Your task to perform on an android device: Empty the shopping cart on amazon. Add alienware area 51 to the cart on amazon Image 0: 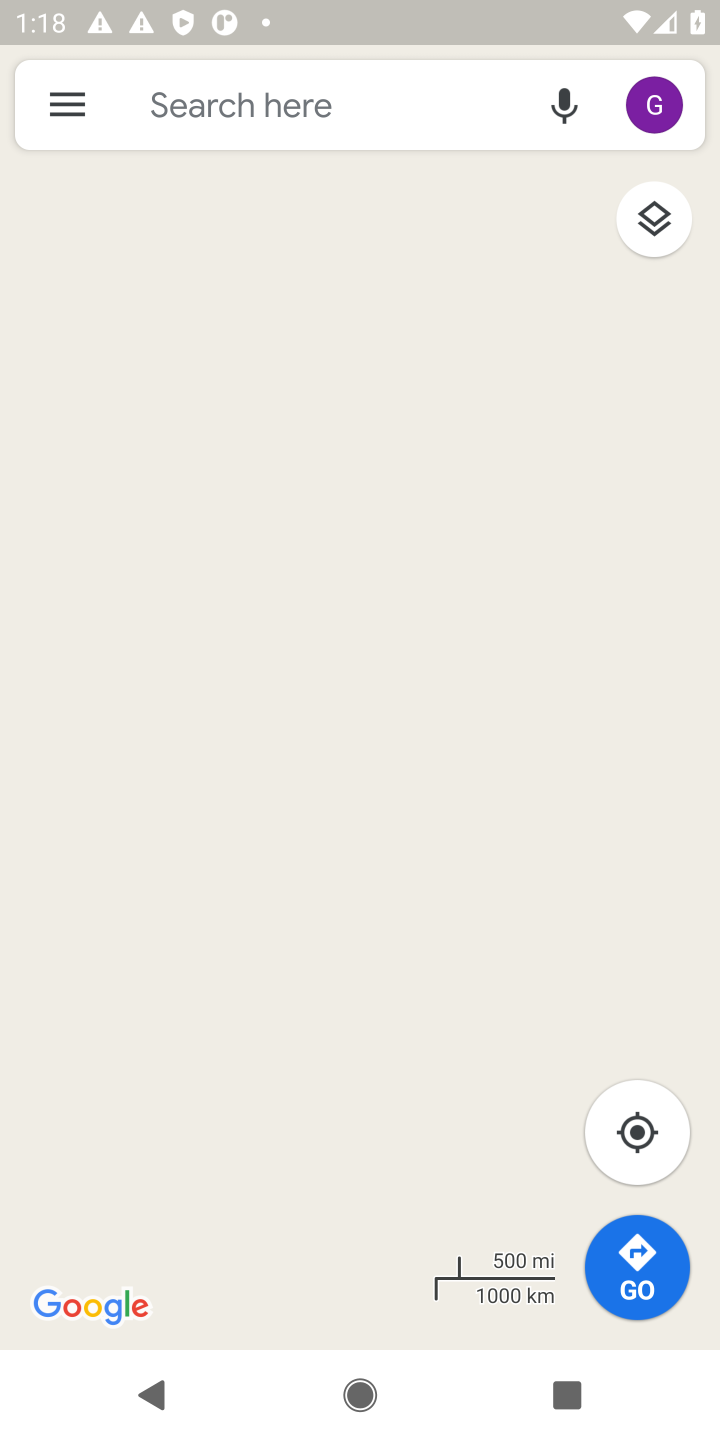
Step 0: press home button
Your task to perform on an android device: Empty the shopping cart on amazon. Add alienware area 51 to the cart on amazon Image 1: 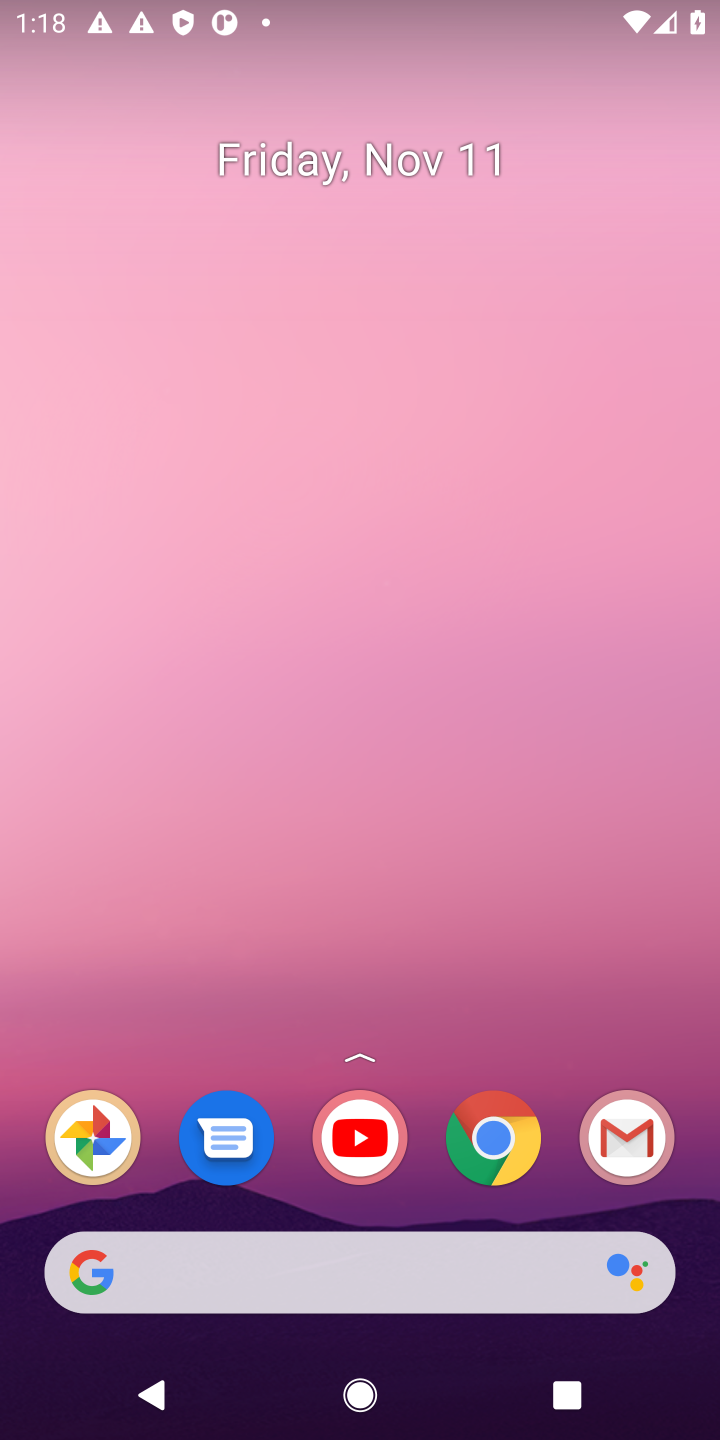
Step 1: click (479, 1130)
Your task to perform on an android device: Empty the shopping cart on amazon. Add alienware area 51 to the cart on amazon Image 2: 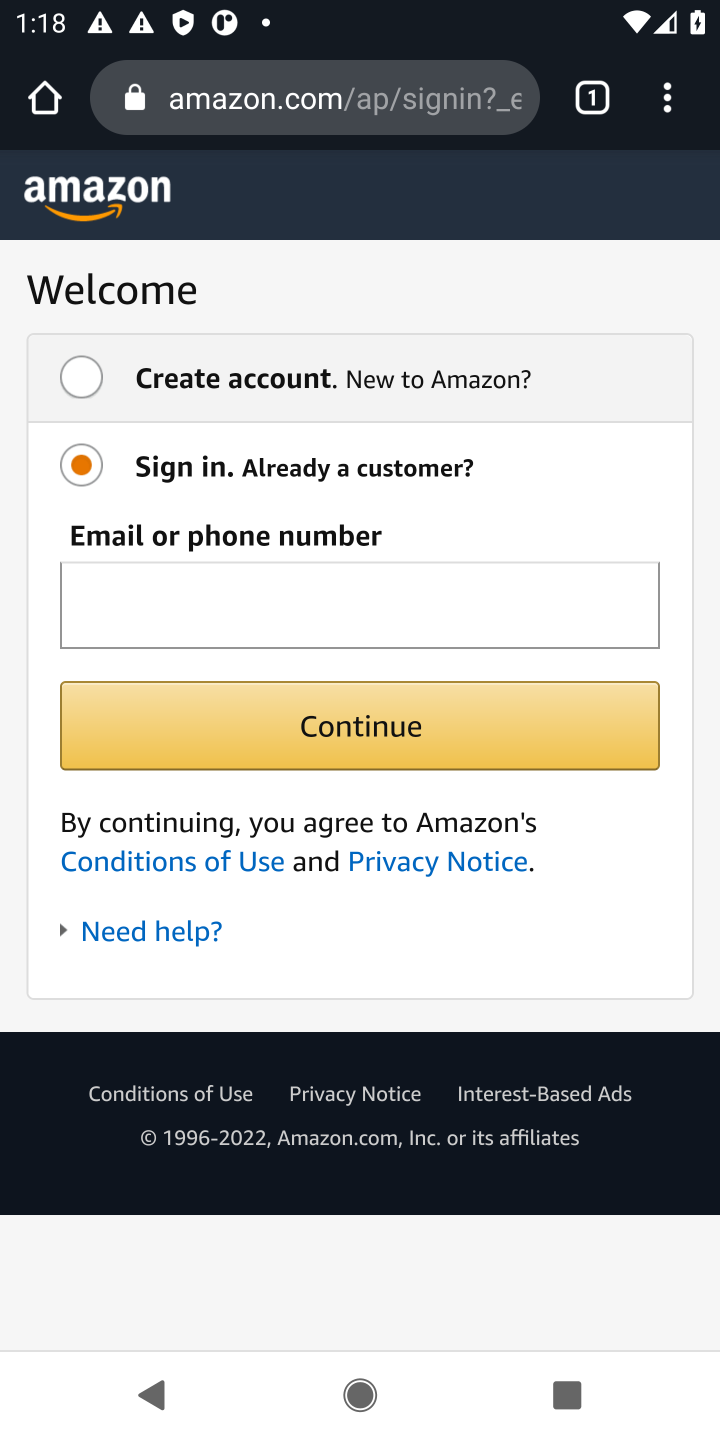
Step 2: press back button
Your task to perform on an android device: Empty the shopping cart on amazon. Add alienware area 51 to the cart on amazon Image 3: 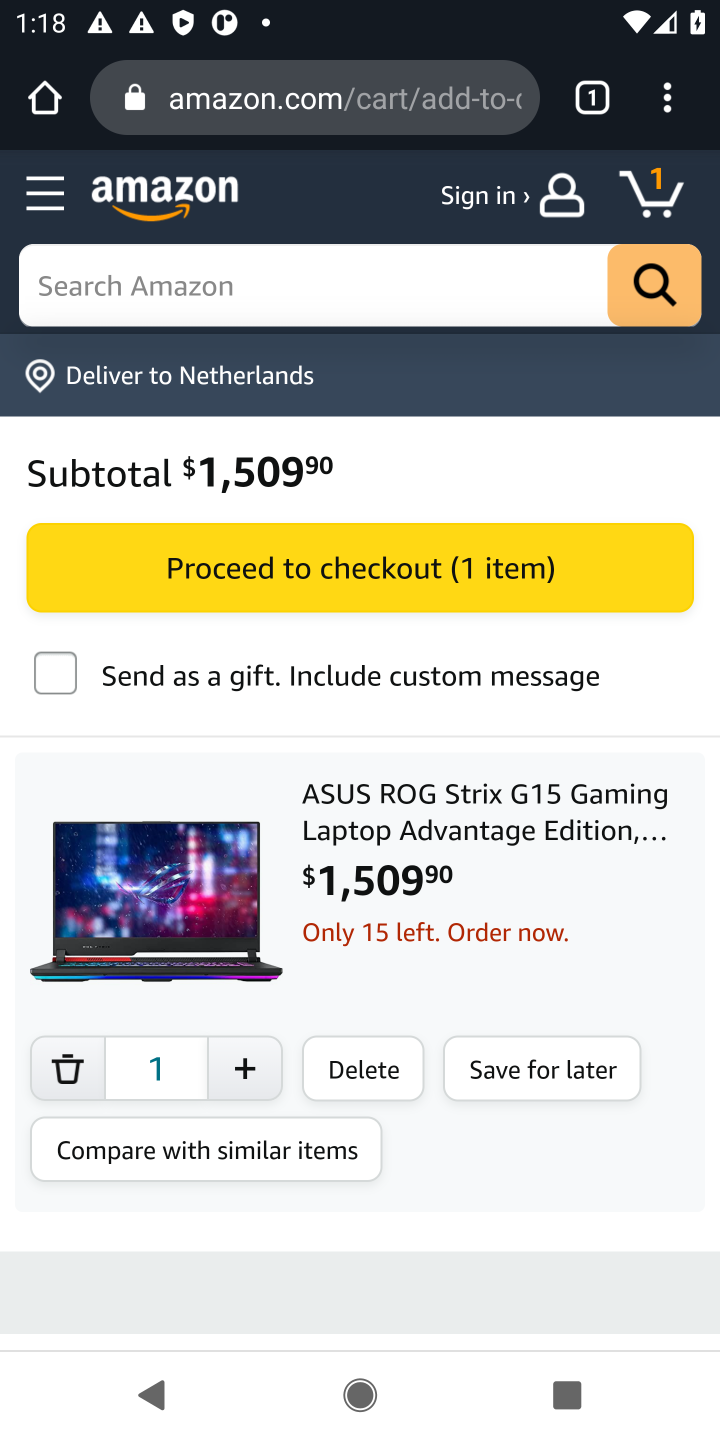
Step 3: click (164, 270)
Your task to perform on an android device: Empty the shopping cart on amazon. Add alienware area 51 to the cart on amazon Image 4: 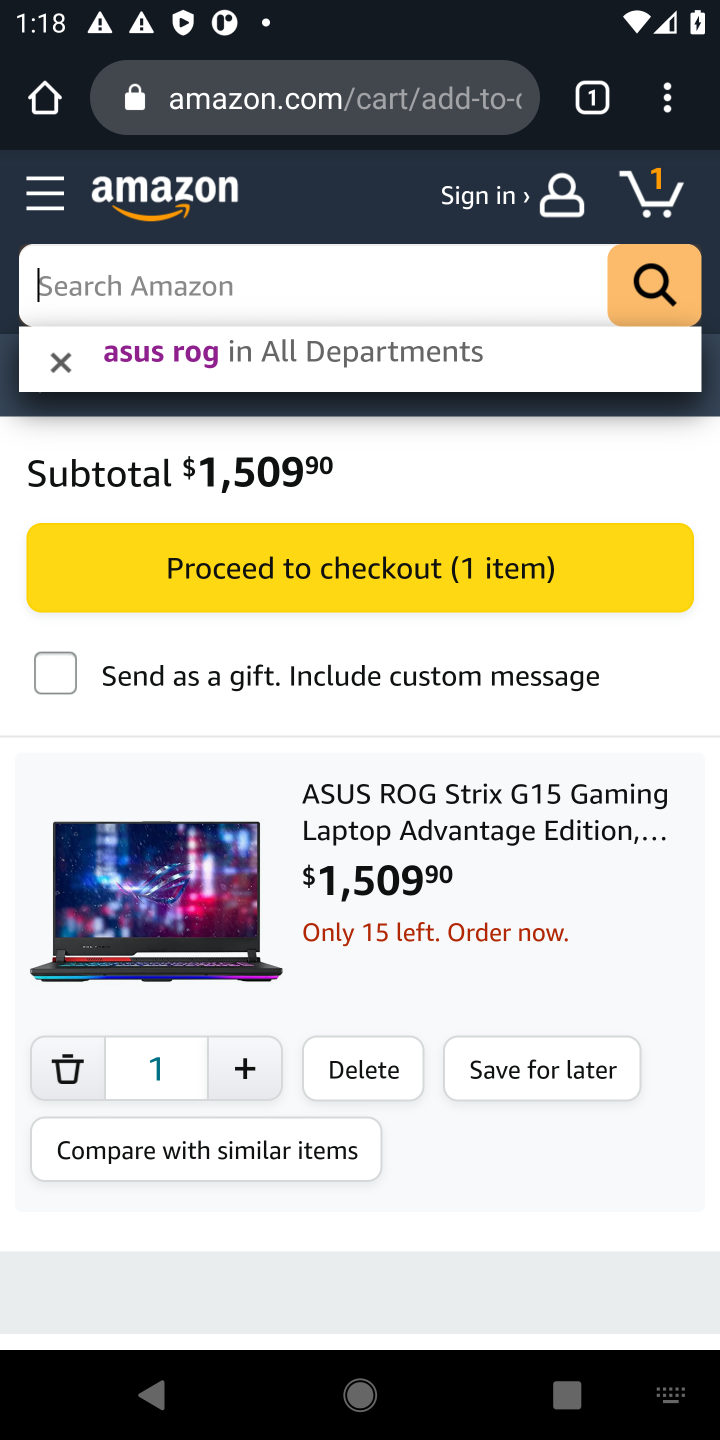
Step 4: type "alienware area 51"
Your task to perform on an android device: Empty the shopping cart on amazon. Add alienware area 51 to the cart on amazon Image 5: 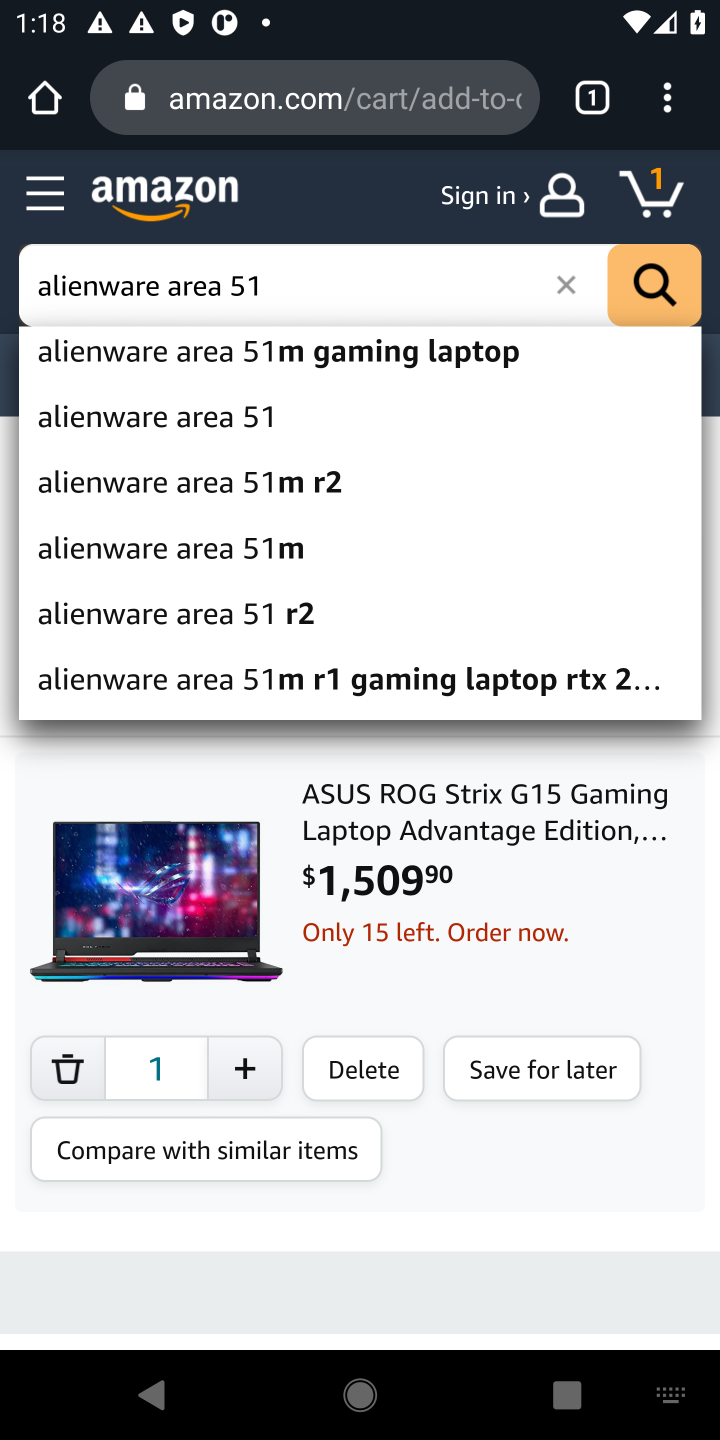
Step 5: click (235, 408)
Your task to perform on an android device: Empty the shopping cart on amazon. Add alienware area 51 to the cart on amazon Image 6: 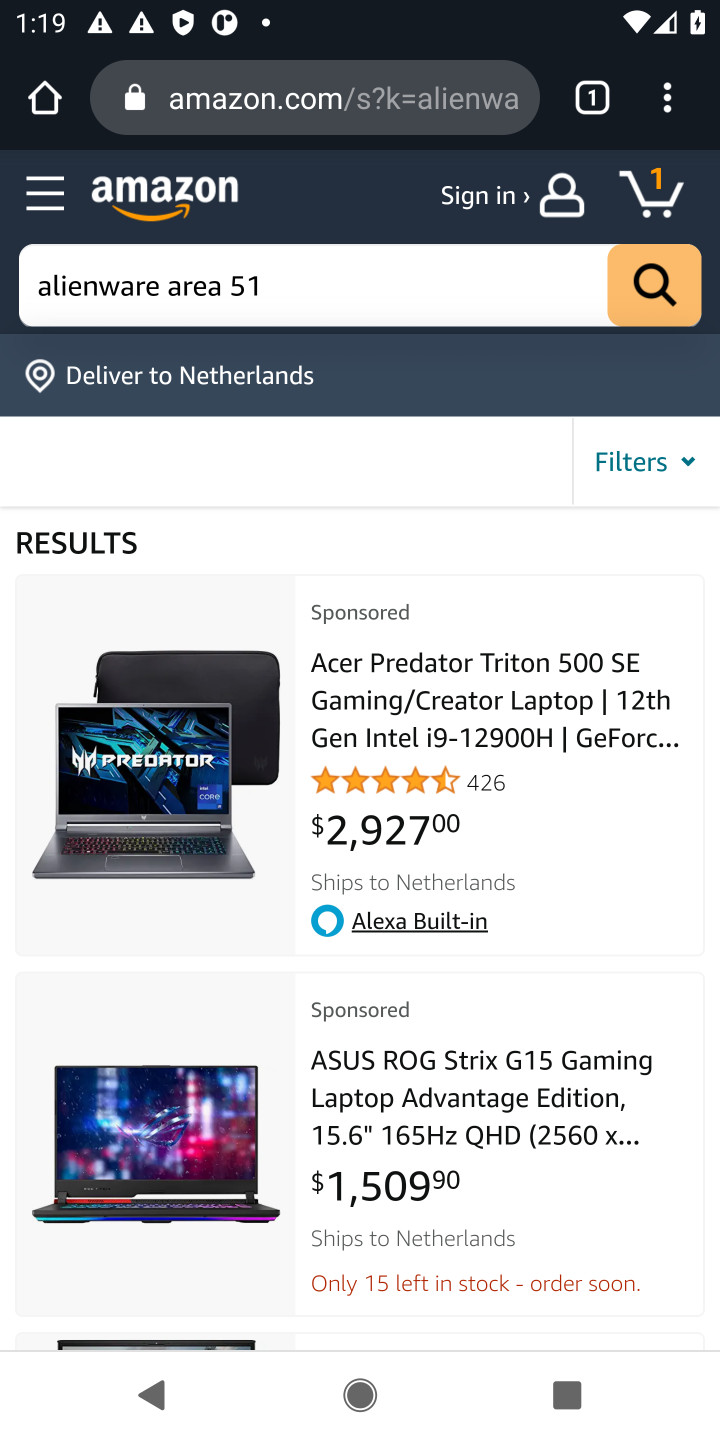
Step 6: drag from (554, 989) to (602, 622)
Your task to perform on an android device: Empty the shopping cart on amazon. Add alienware area 51 to the cart on amazon Image 7: 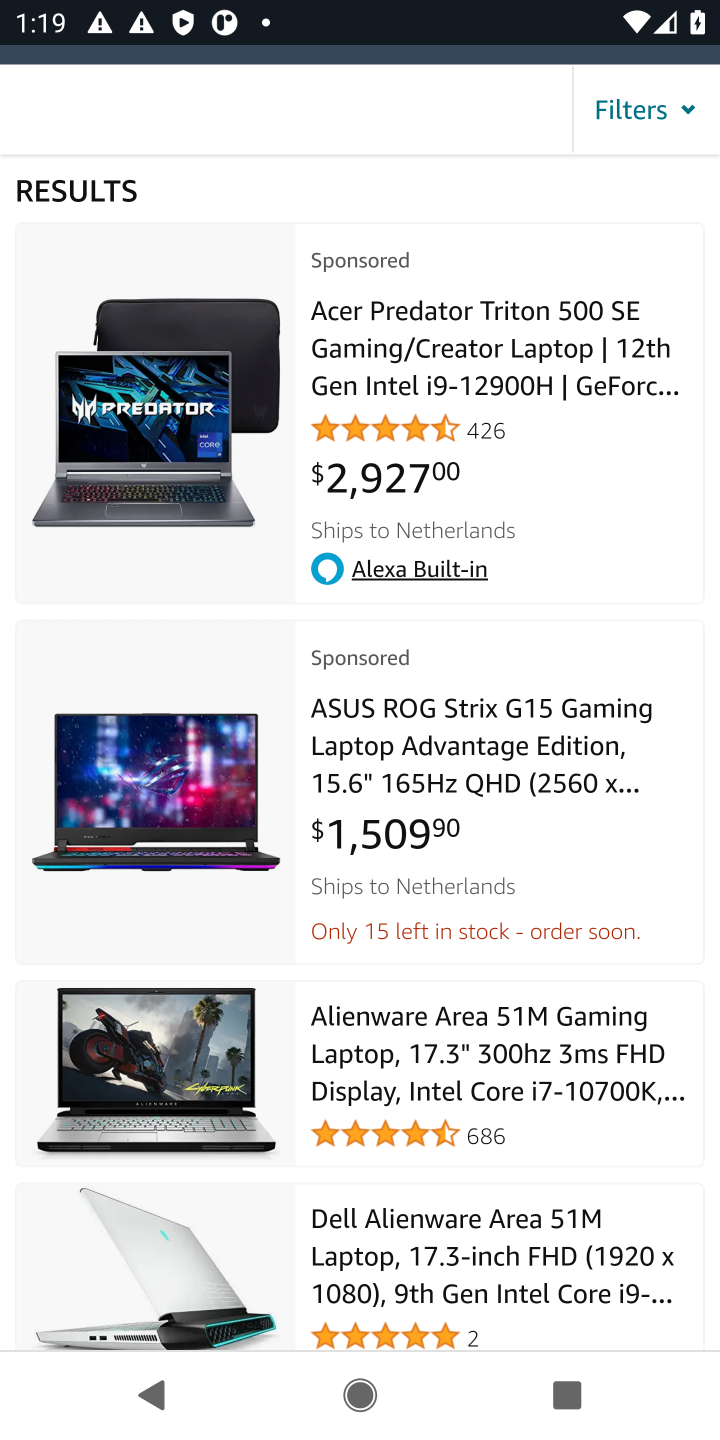
Step 7: click (458, 1039)
Your task to perform on an android device: Empty the shopping cart on amazon. Add alienware area 51 to the cart on amazon Image 8: 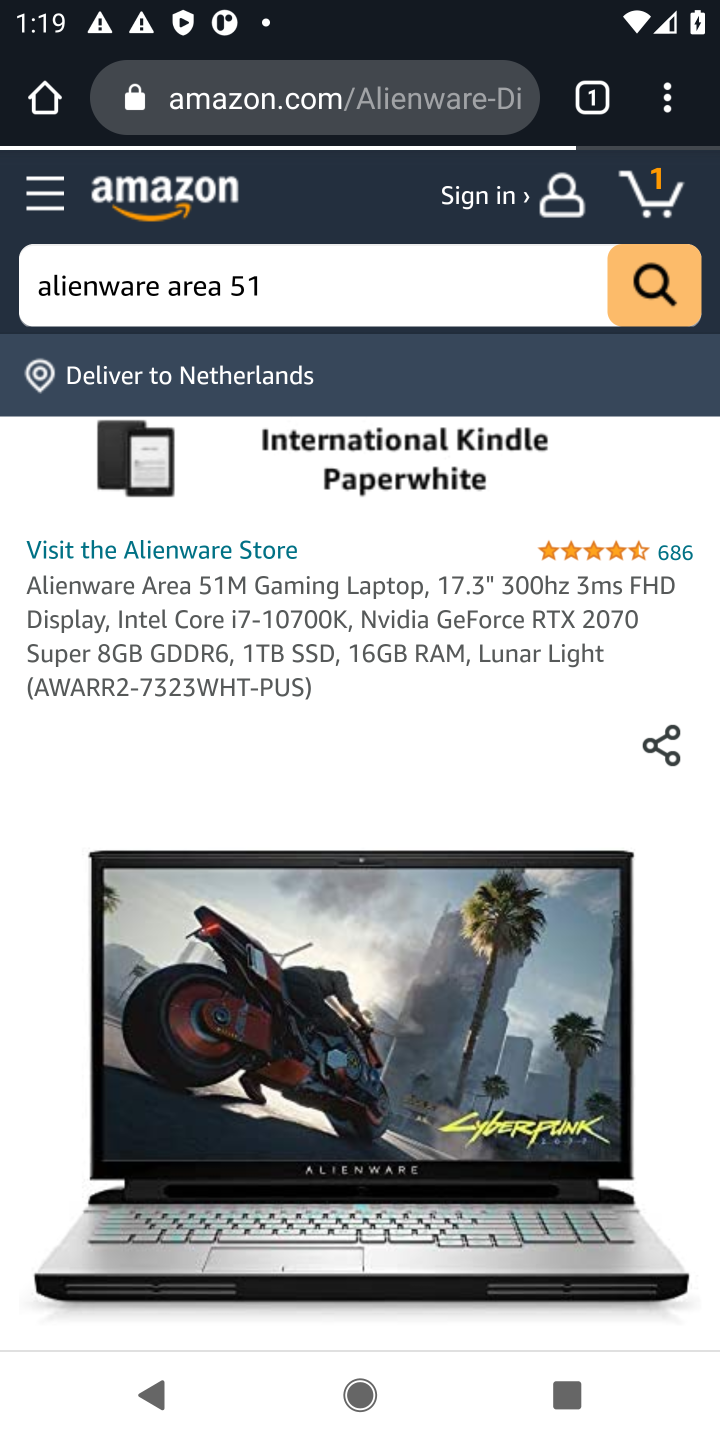
Step 8: drag from (204, 869) to (259, 571)
Your task to perform on an android device: Empty the shopping cart on amazon. Add alienware area 51 to the cart on amazon Image 9: 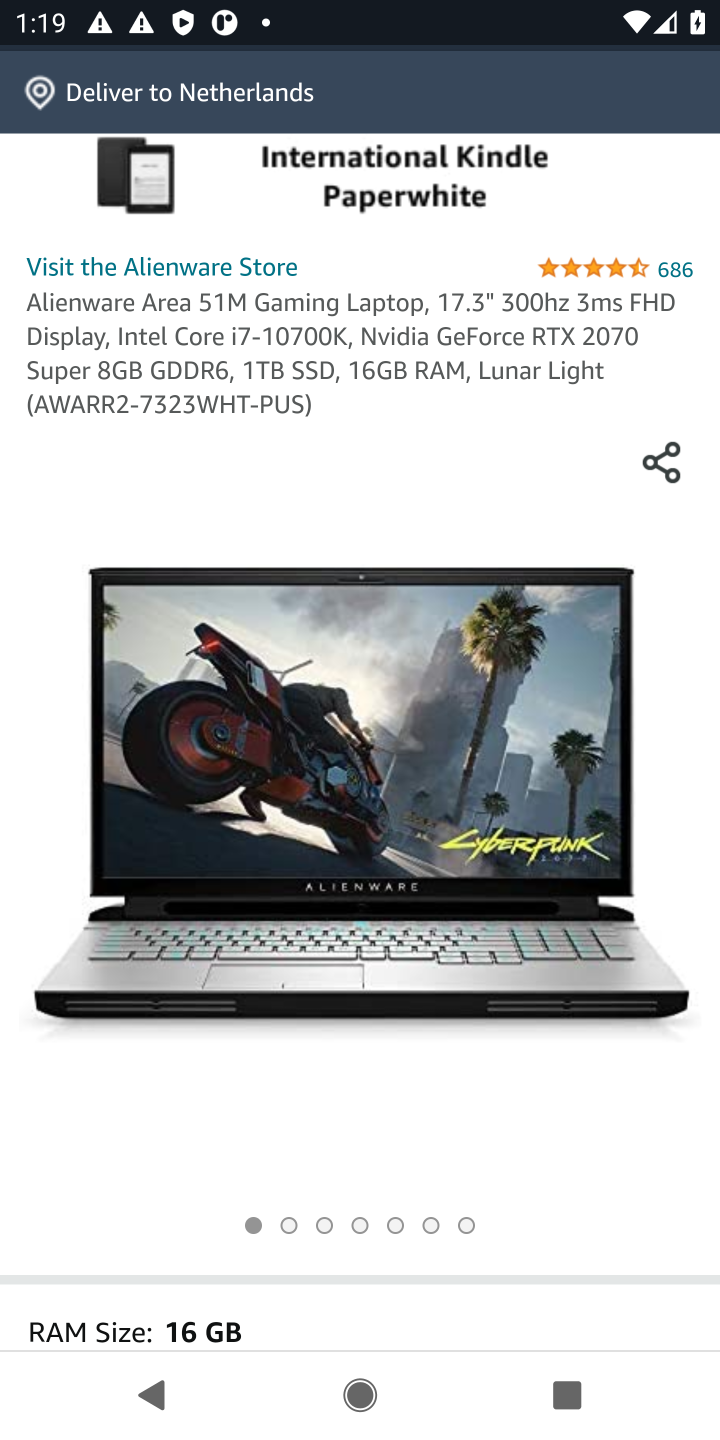
Step 9: drag from (346, 1120) to (655, 40)
Your task to perform on an android device: Empty the shopping cart on amazon. Add alienware area 51 to the cart on amazon Image 10: 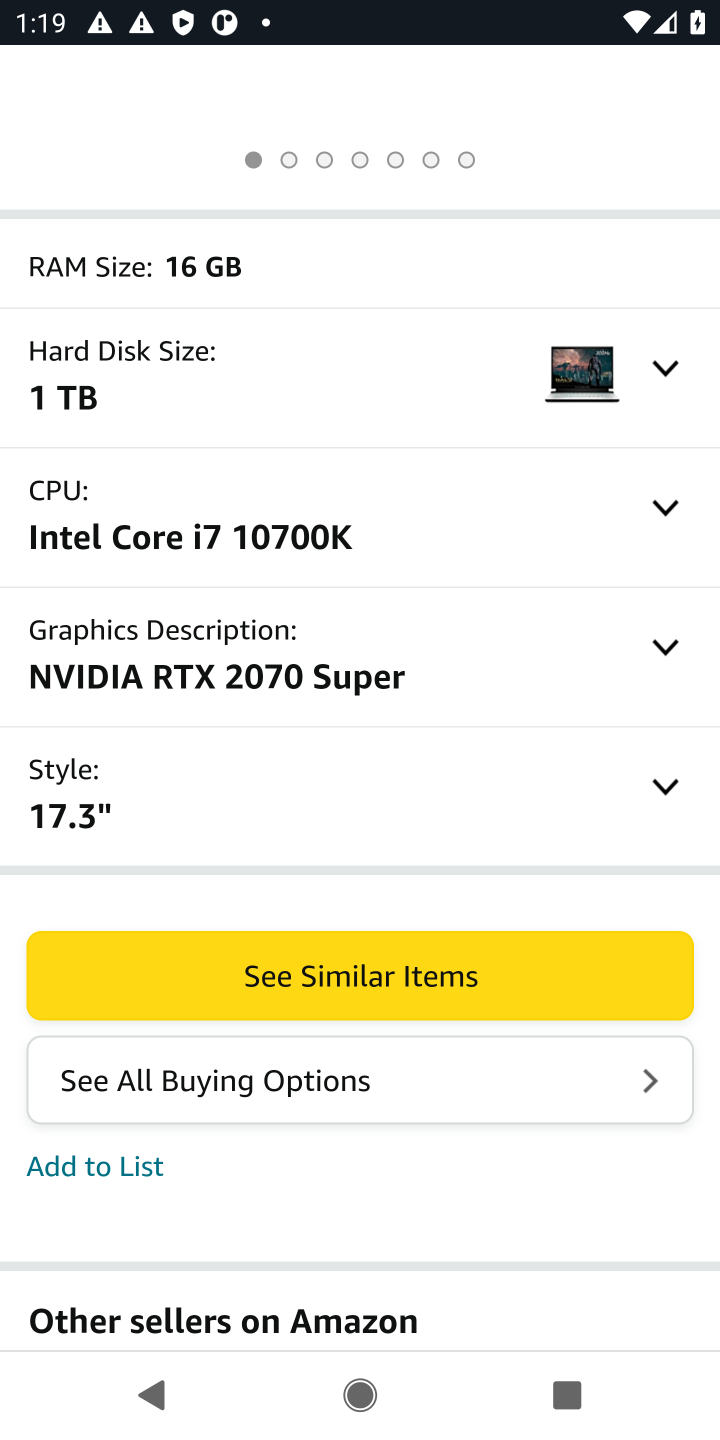
Step 10: click (344, 975)
Your task to perform on an android device: Empty the shopping cart on amazon. Add alienware area 51 to the cart on amazon Image 11: 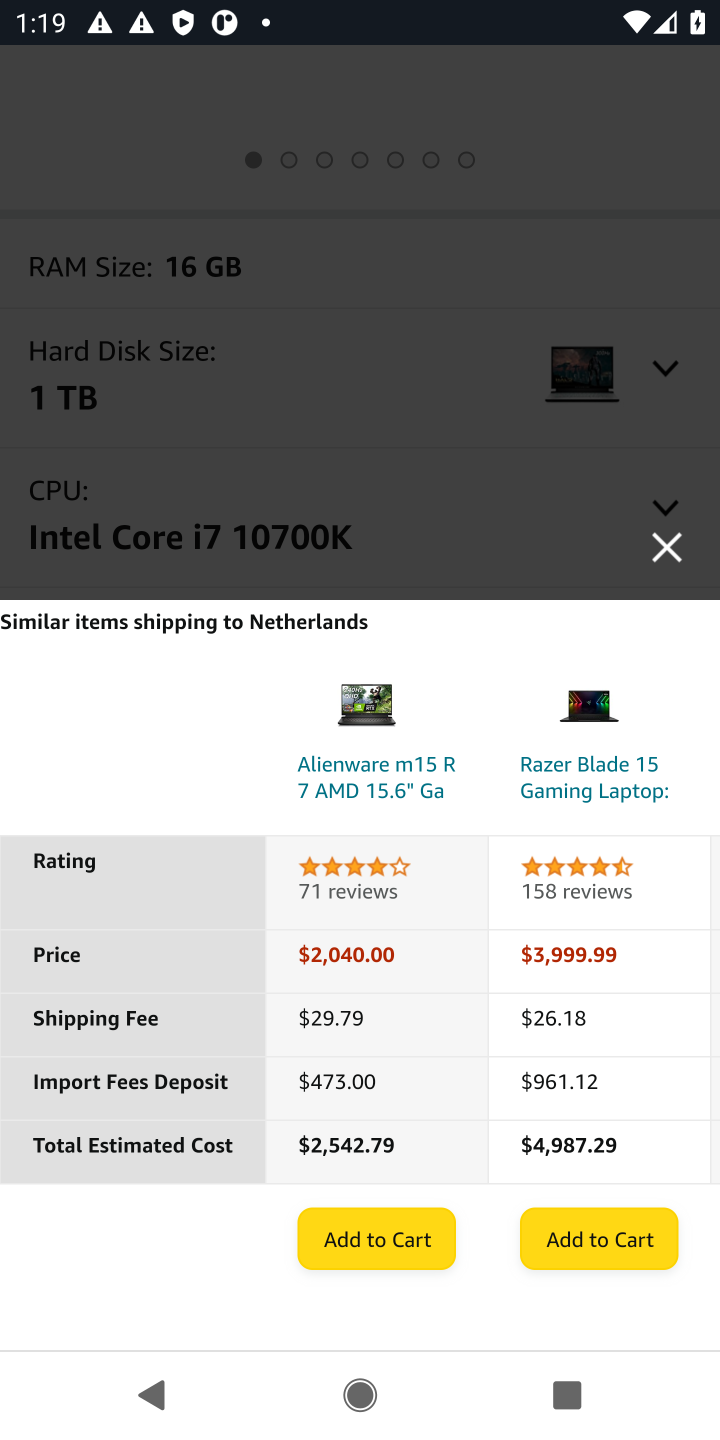
Step 11: click (395, 1229)
Your task to perform on an android device: Empty the shopping cart on amazon. Add alienware area 51 to the cart on amazon Image 12: 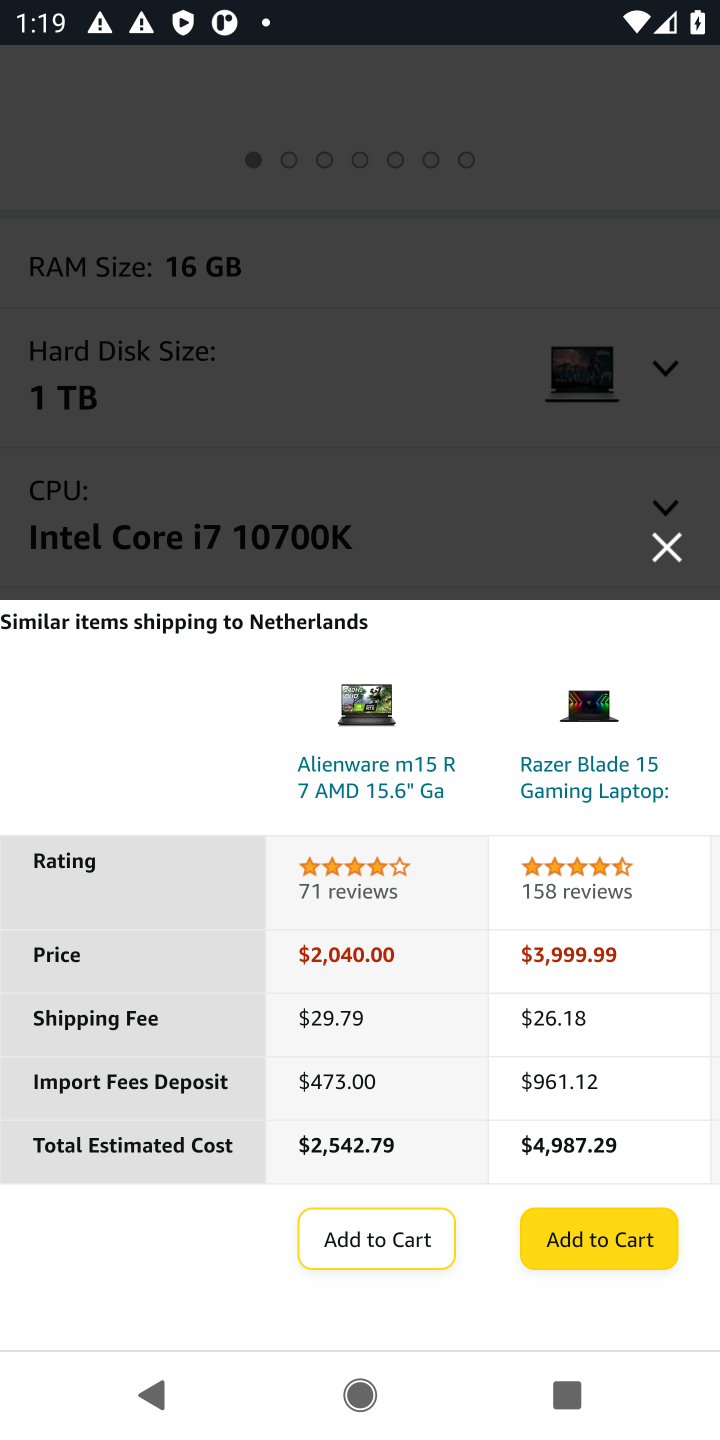
Step 12: task complete